Your task to perform on an android device: delete browsing data in the chrome app Image 0: 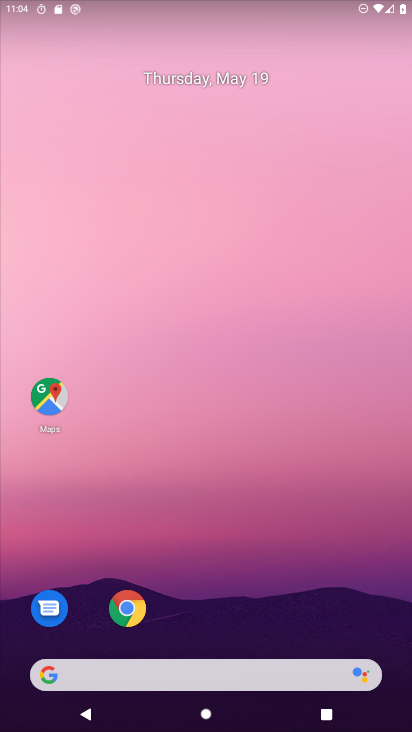
Step 0: click (123, 613)
Your task to perform on an android device: delete browsing data in the chrome app Image 1: 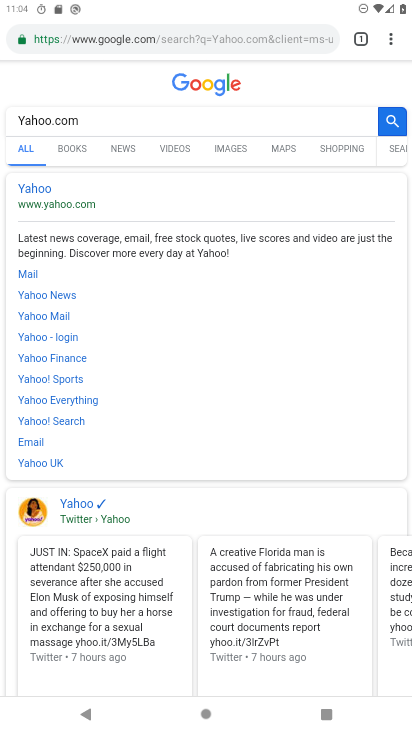
Step 1: click (385, 40)
Your task to perform on an android device: delete browsing data in the chrome app Image 2: 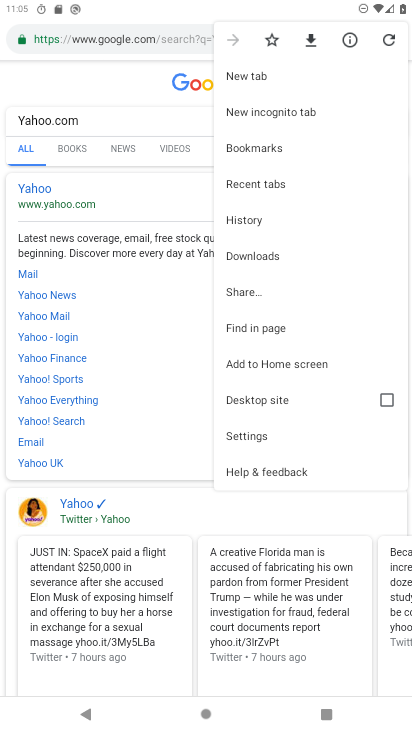
Step 2: click (240, 216)
Your task to perform on an android device: delete browsing data in the chrome app Image 3: 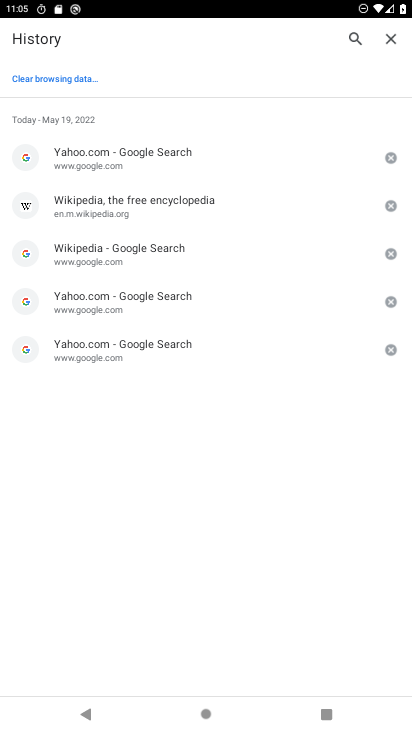
Step 3: click (71, 85)
Your task to perform on an android device: delete browsing data in the chrome app Image 4: 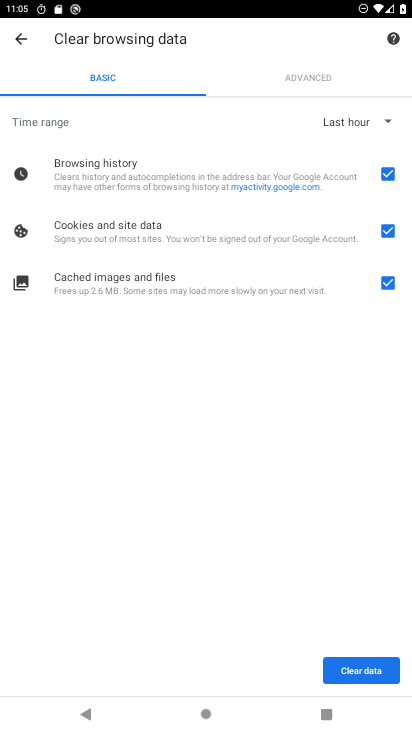
Step 4: click (363, 671)
Your task to perform on an android device: delete browsing data in the chrome app Image 5: 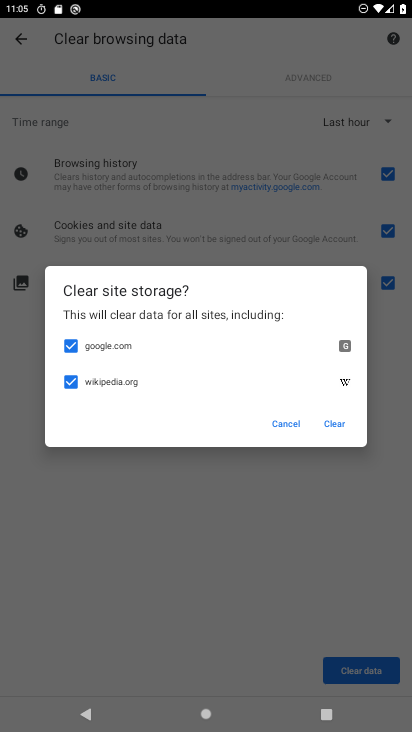
Step 5: click (333, 420)
Your task to perform on an android device: delete browsing data in the chrome app Image 6: 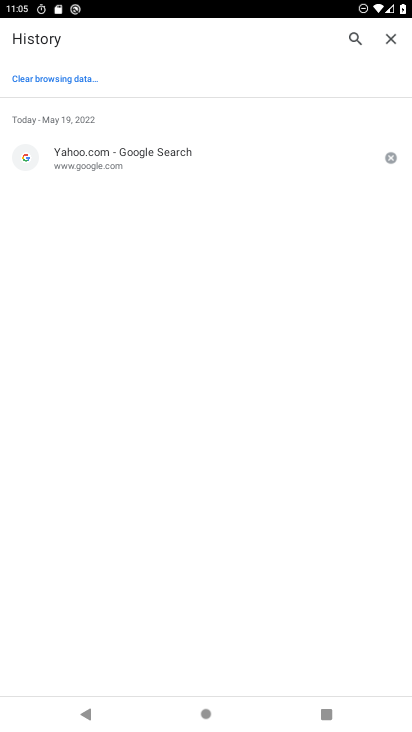
Step 6: task complete